Your task to perform on an android device: open chrome privacy settings Image 0: 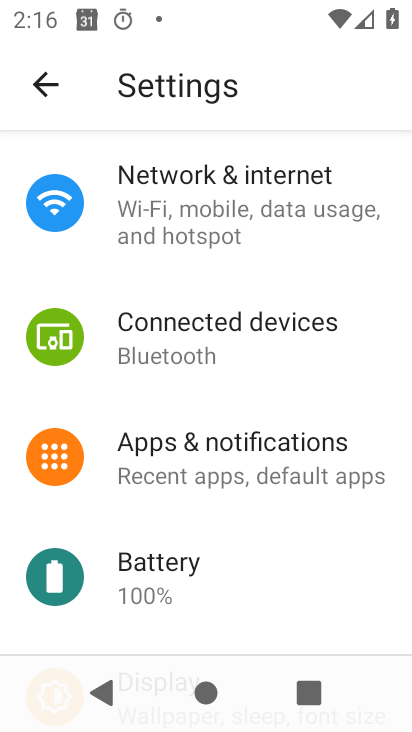
Step 0: drag from (253, 529) to (241, 101)
Your task to perform on an android device: open chrome privacy settings Image 1: 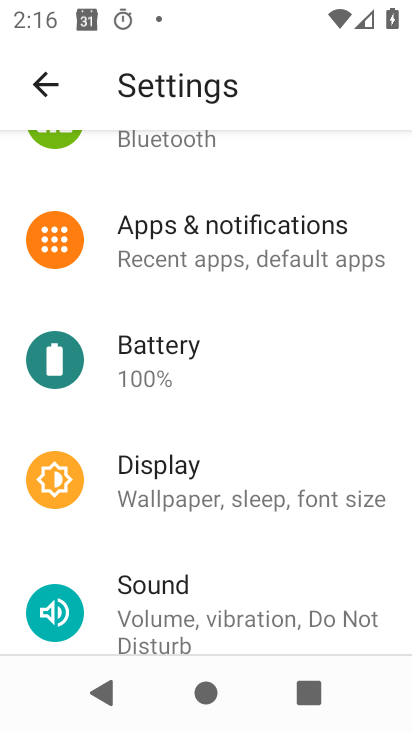
Step 1: press home button
Your task to perform on an android device: open chrome privacy settings Image 2: 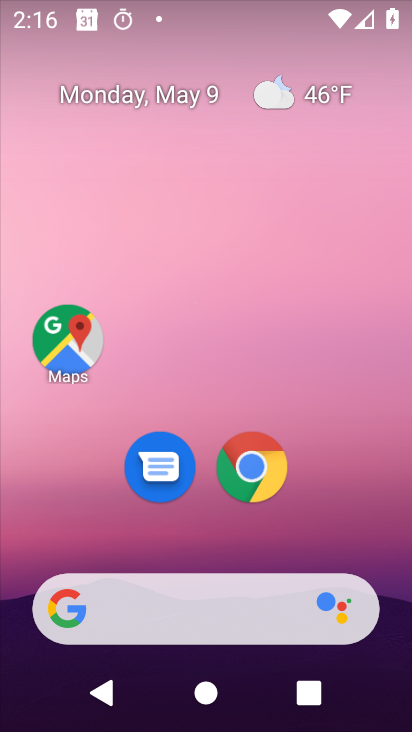
Step 2: drag from (336, 501) to (318, 12)
Your task to perform on an android device: open chrome privacy settings Image 3: 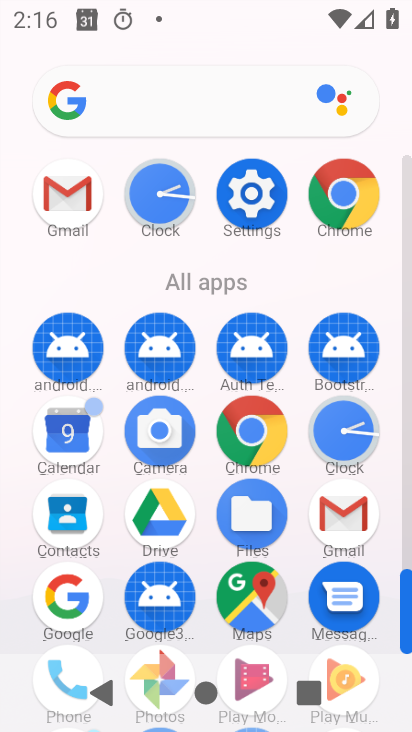
Step 3: click (257, 430)
Your task to perform on an android device: open chrome privacy settings Image 4: 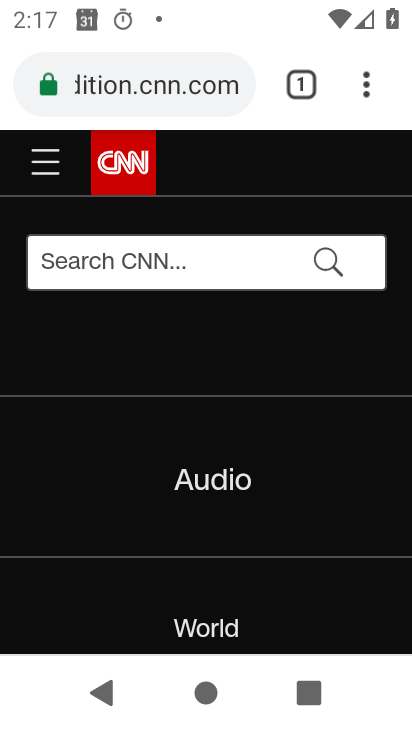
Step 4: drag from (367, 88) to (110, 515)
Your task to perform on an android device: open chrome privacy settings Image 5: 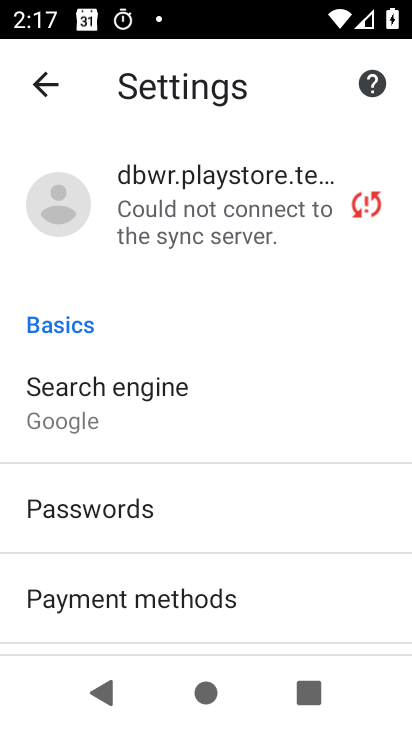
Step 5: drag from (255, 592) to (232, 181)
Your task to perform on an android device: open chrome privacy settings Image 6: 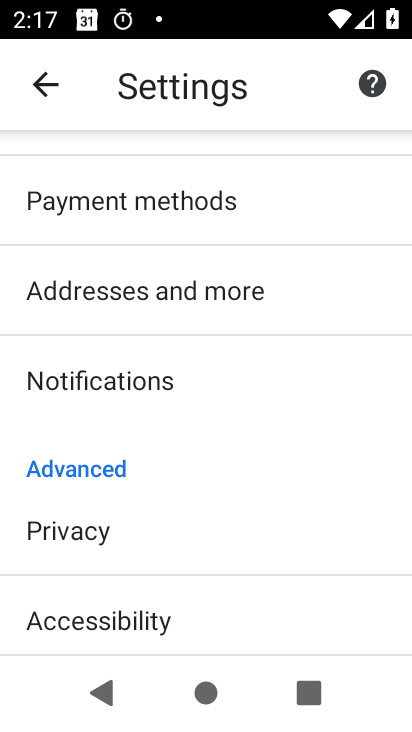
Step 6: click (74, 537)
Your task to perform on an android device: open chrome privacy settings Image 7: 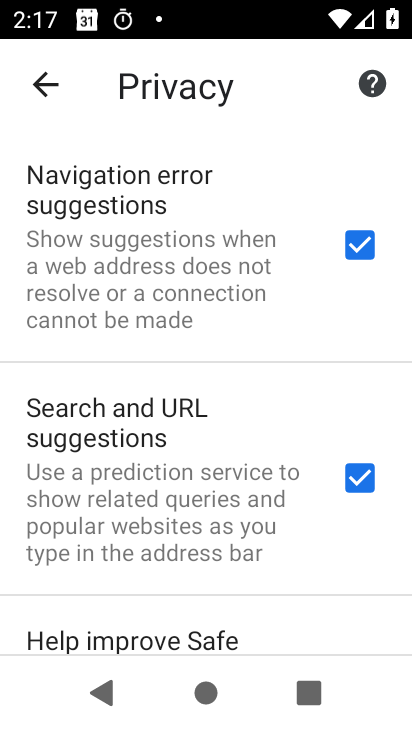
Step 7: task complete